Your task to perform on an android device: What is the recent news? Image 0: 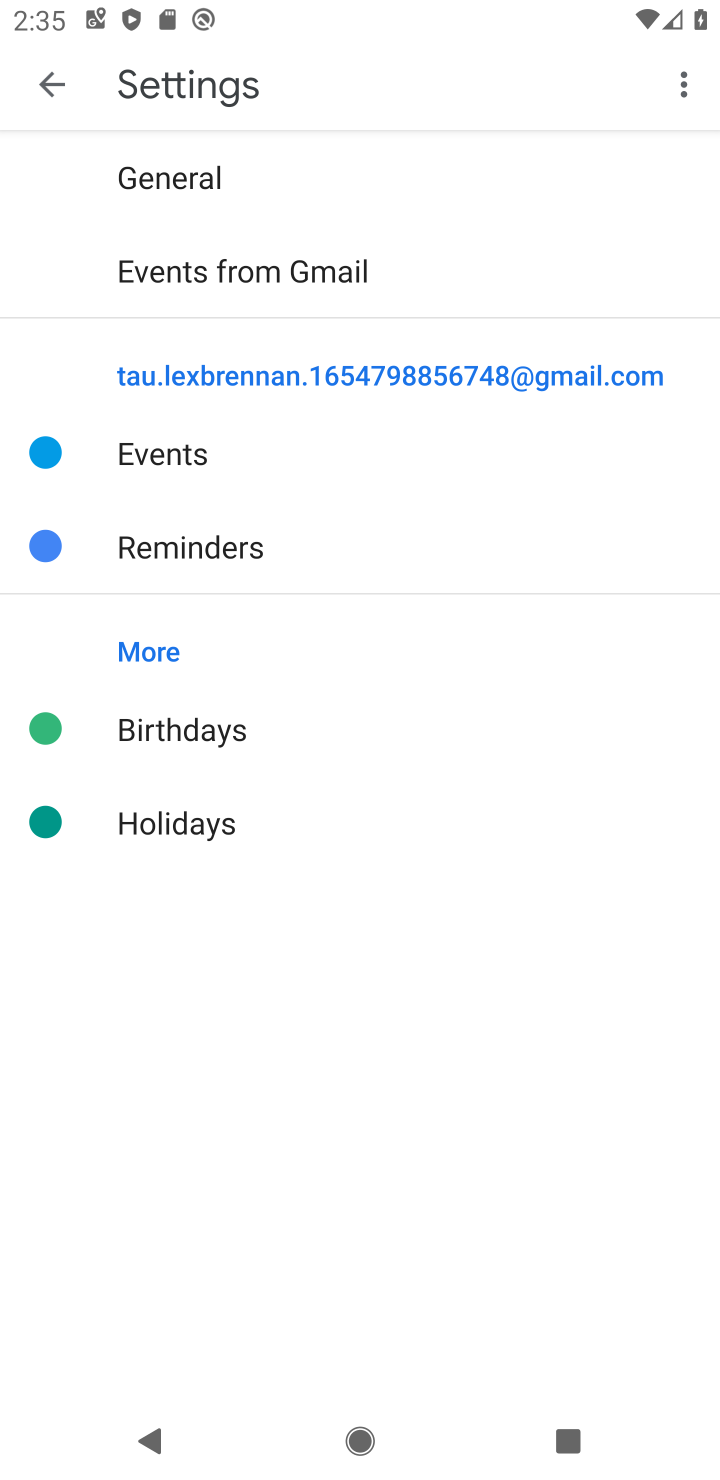
Step 0: press home button
Your task to perform on an android device: What is the recent news? Image 1: 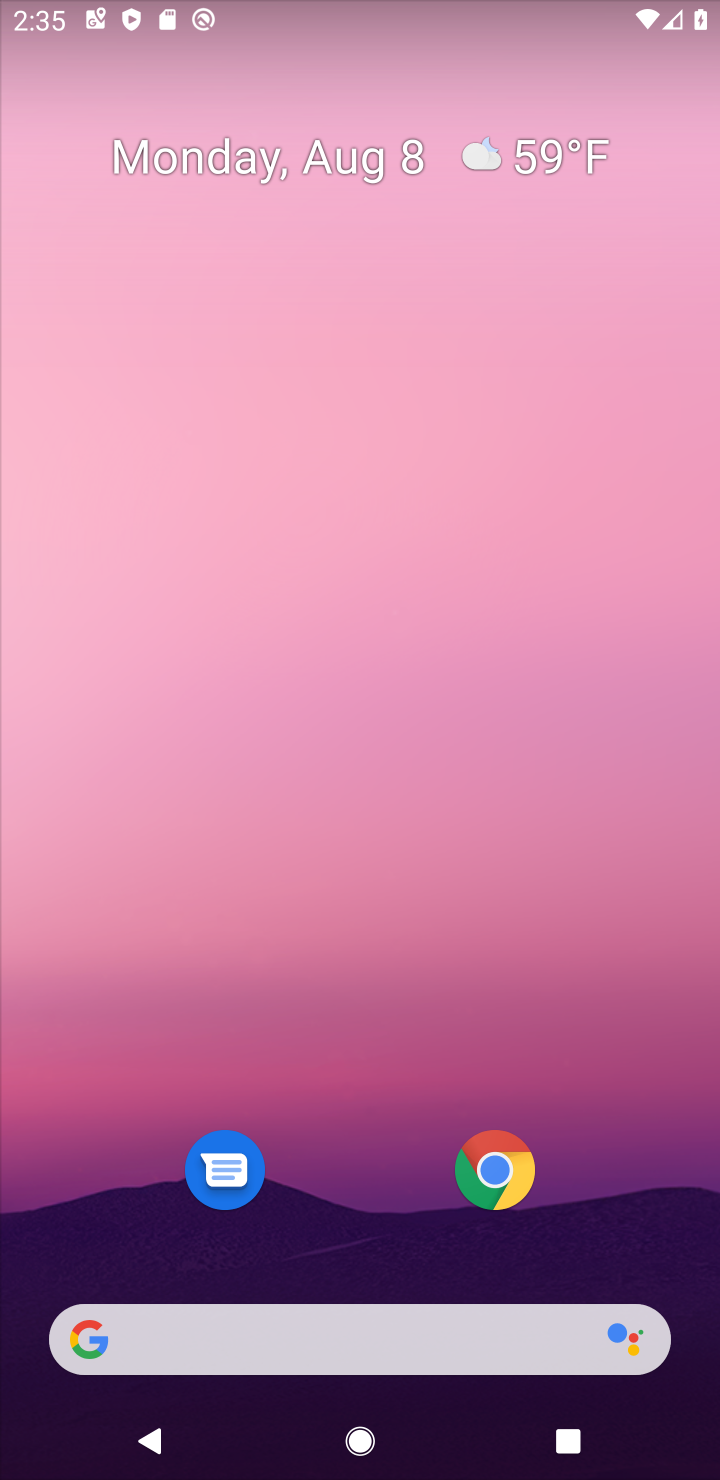
Step 1: drag from (349, 848) to (349, 473)
Your task to perform on an android device: What is the recent news? Image 2: 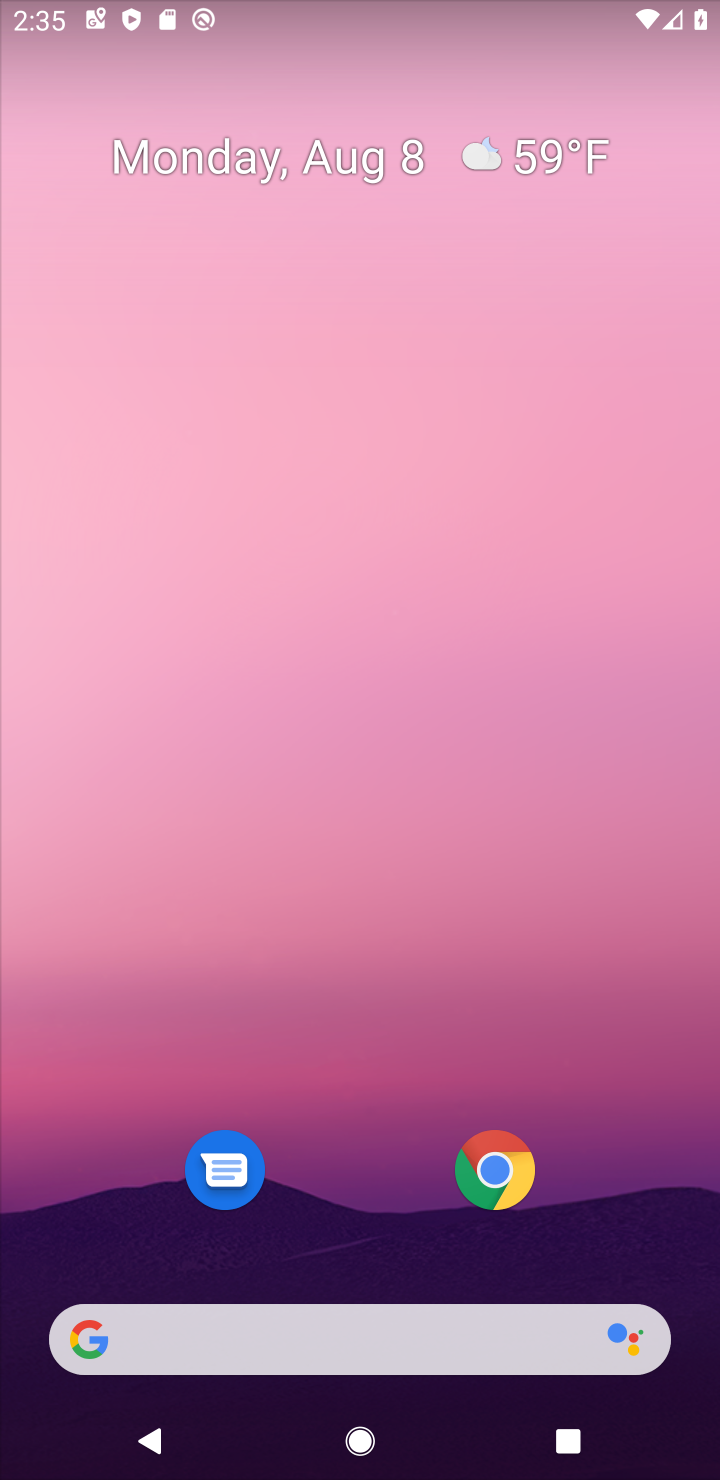
Step 2: drag from (316, 1140) to (328, 461)
Your task to perform on an android device: What is the recent news? Image 3: 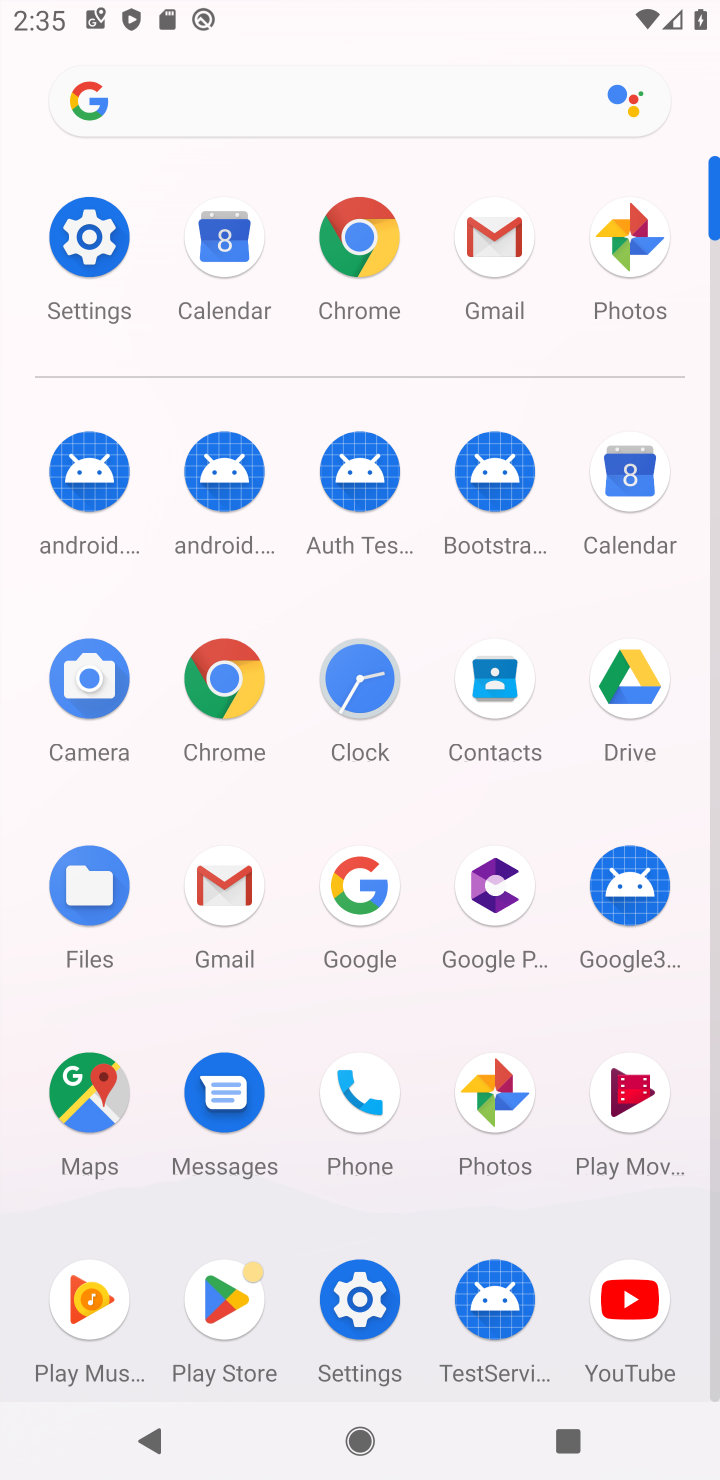
Step 3: click (342, 922)
Your task to perform on an android device: What is the recent news? Image 4: 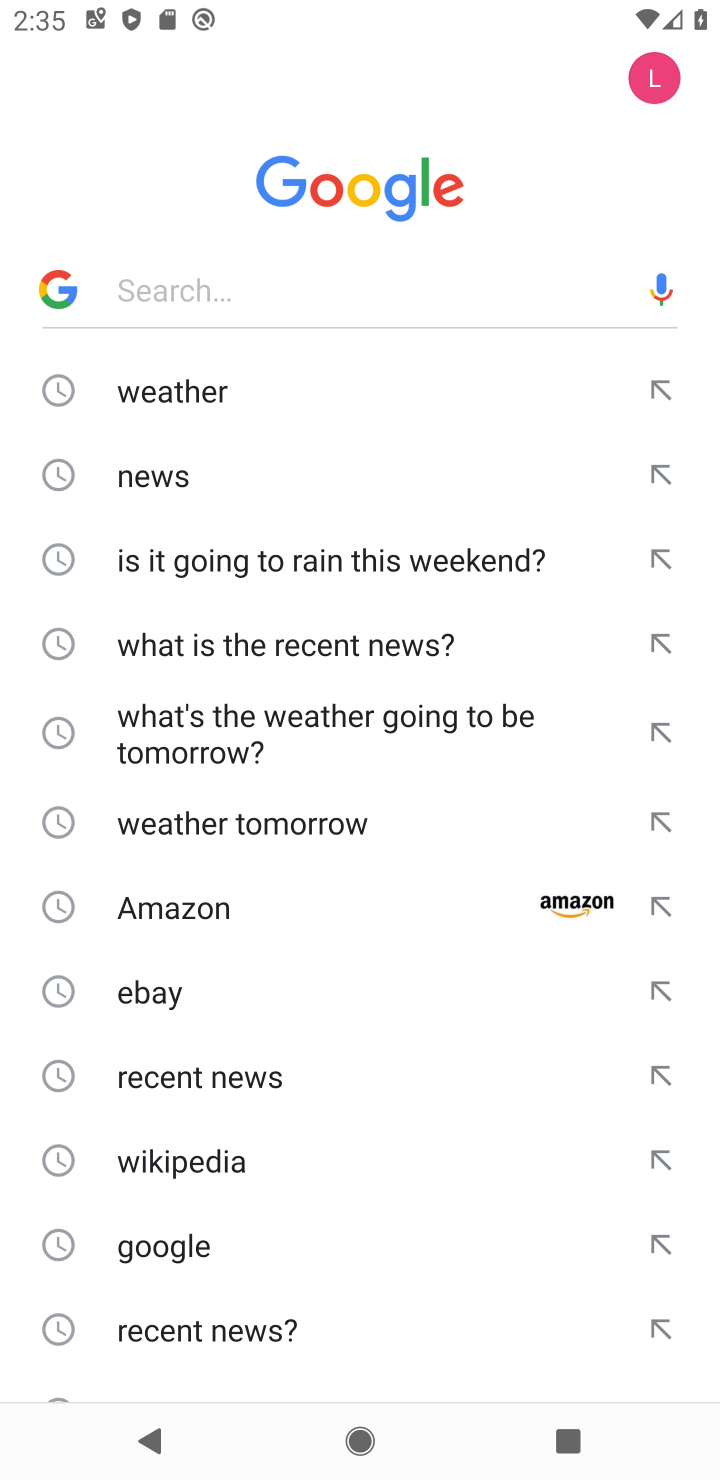
Step 4: click (205, 465)
Your task to perform on an android device: What is the recent news? Image 5: 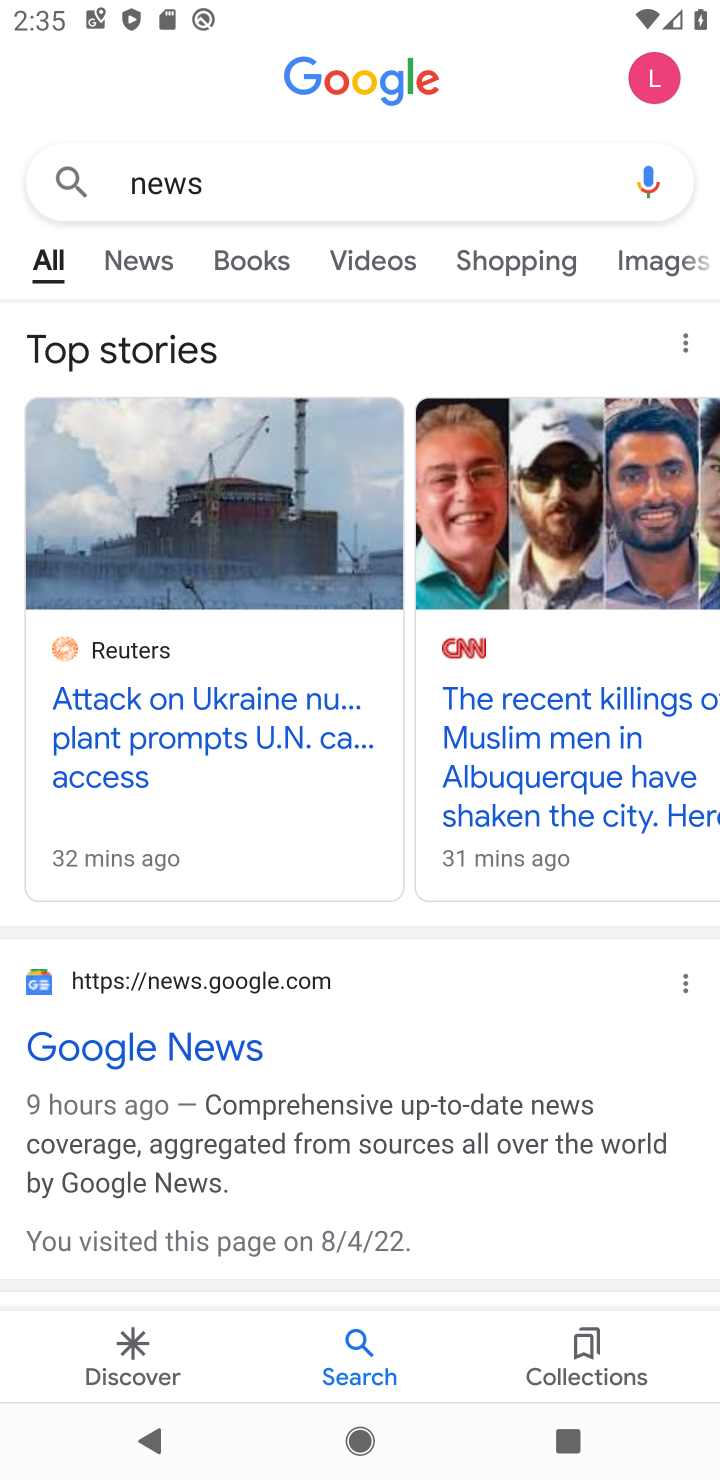
Step 5: click (133, 263)
Your task to perform on an android device: What is the recent news? Image 6: 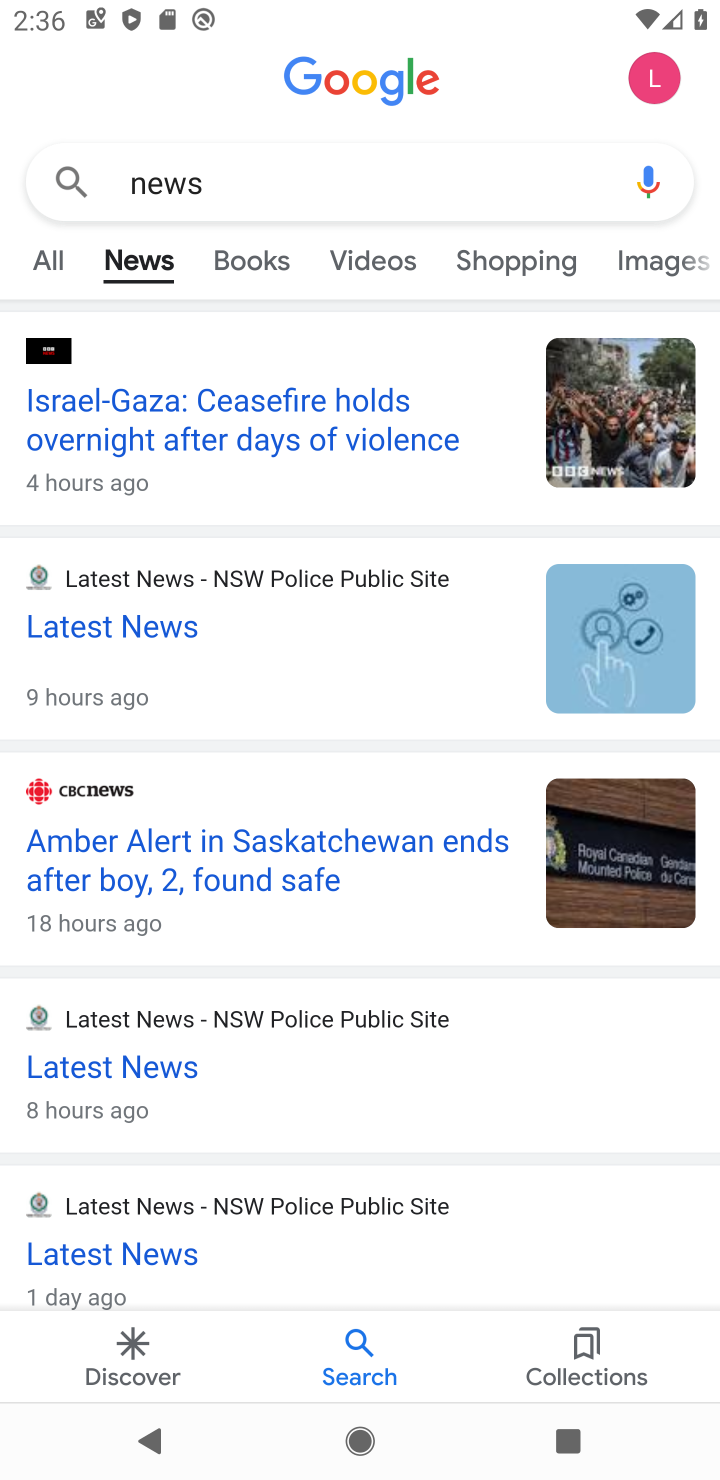
Step 6: task complete